Your task to perform on an android device: open app "Adobe Acrobat Reader: Edit PDF" (install if not already installed) Image 0: 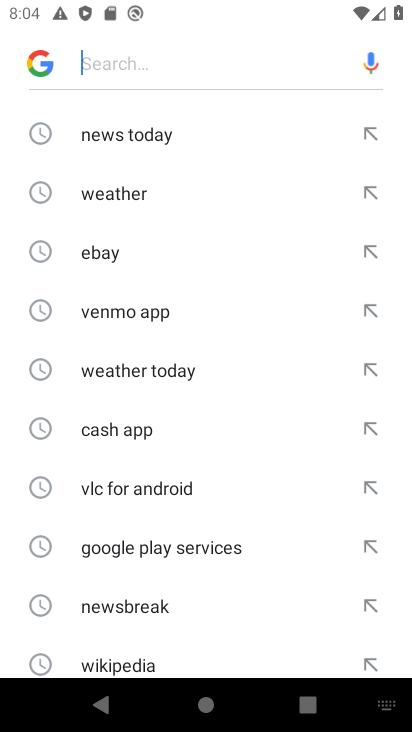
Step 0: press home button
Your task to perform on an android device: open app "Adobe Acrobat Reader: Edit PDF" (install if not already installed) Image 1: 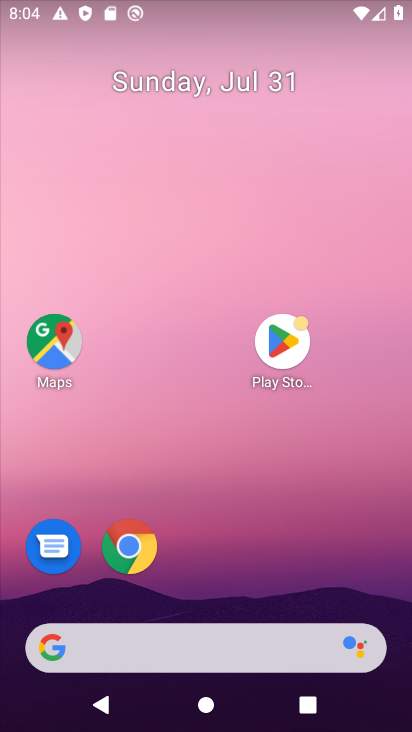
Step 1: click (281, 330)
Your task to perform on an android device: open app "Adobe Acrobat Reader: Edit PDF" (install if not already installed) Image 2: 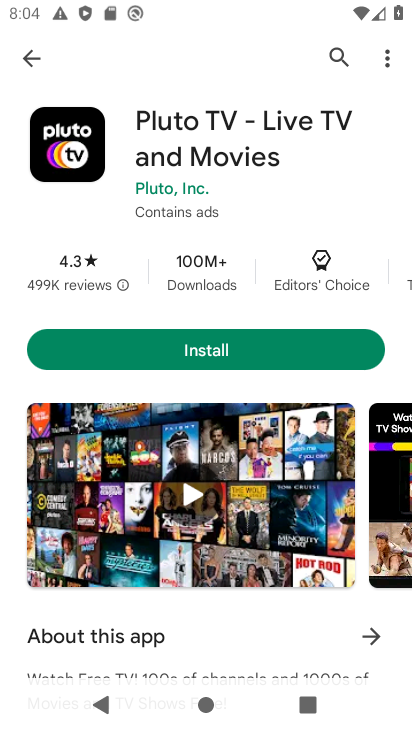
Step 2: click (336, 55)
Your task to perform on an android device: open app "Adobe Acrobat Reader: Edit PDF" (install if not already installed) Image 3: 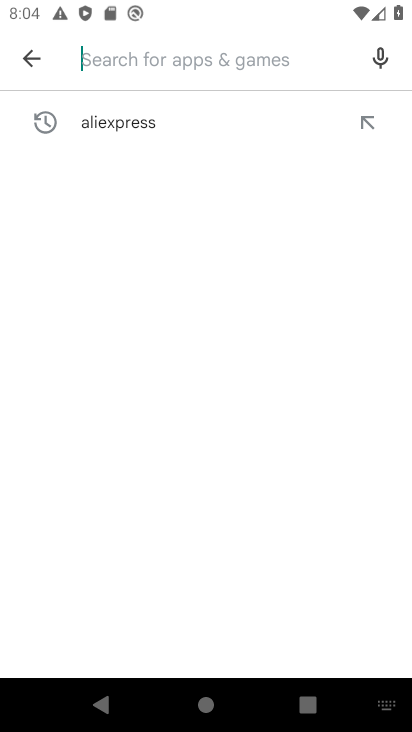
Step 3: type "Adobe Acrobat Reader: Edit PDF"
Your task to perform on an android device: open app "Adobe Acrobat Reader: Edit PDF" (install if not already installed) Image 4: 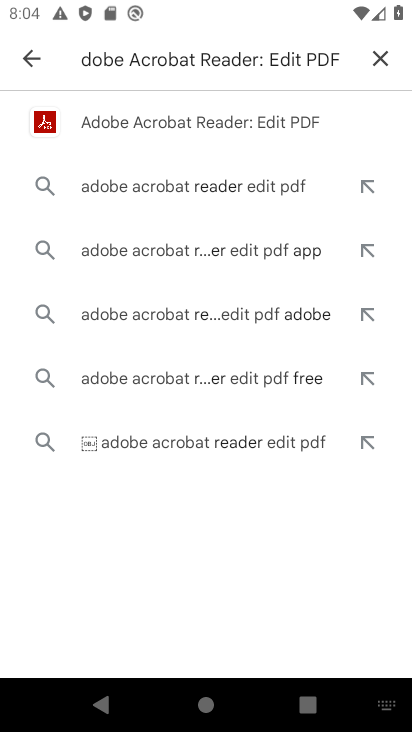
Step 4: click (228, 121)
Your task to perform on an android device: open app "Adobe Acrobat Reader: Edit PDF" (install if not already installed) Image 5: 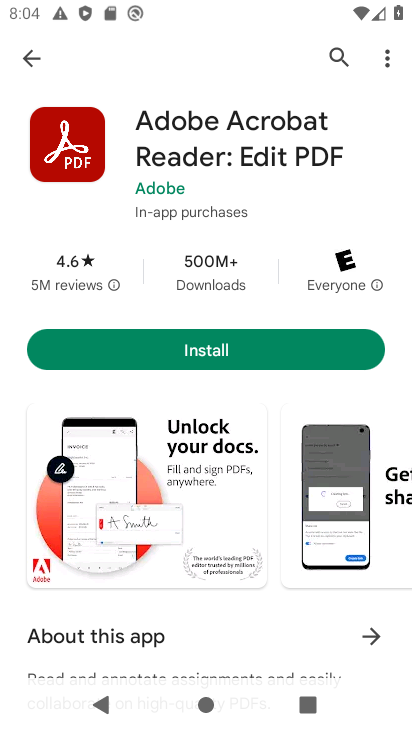
Step 5: click (188, 353)
Your task to perform on an android device: open app "Adobe Acrobat Reader: Edit PDF" (install if not already installed) Image 6: 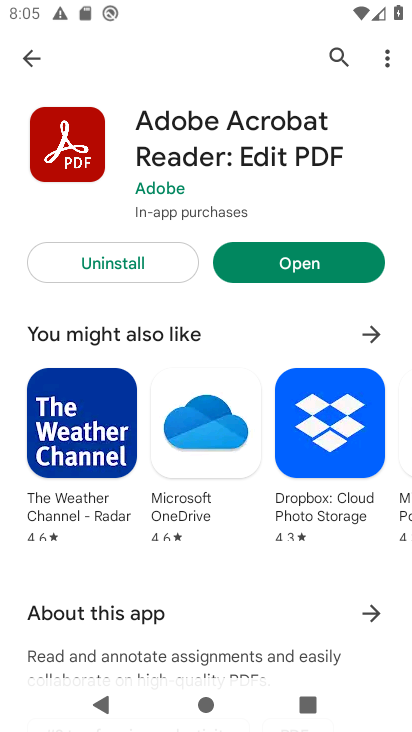
Step 6: click (340, 263)
Your task to perform on an android device: open app "Adobe Acrobat Reader: Edit PDF" (install if not already installed) Image 7: 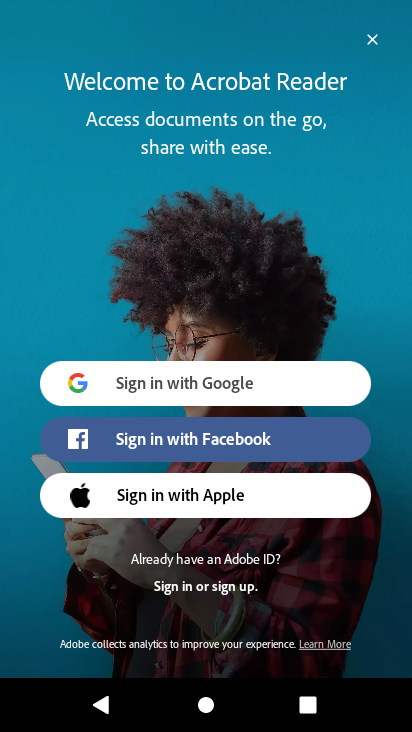
Step 7: task complete